Your task to perform on an android device: turn on improve location accuracy Image 0: 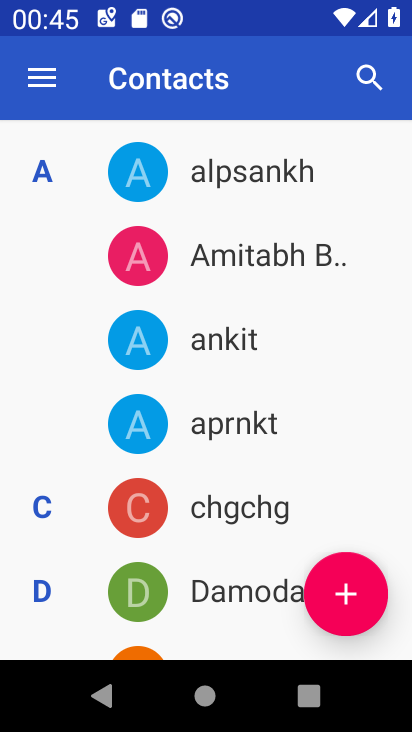
Step 0: press home button
Your task to perform on an android device: turn on improve location accuracy Image 1: 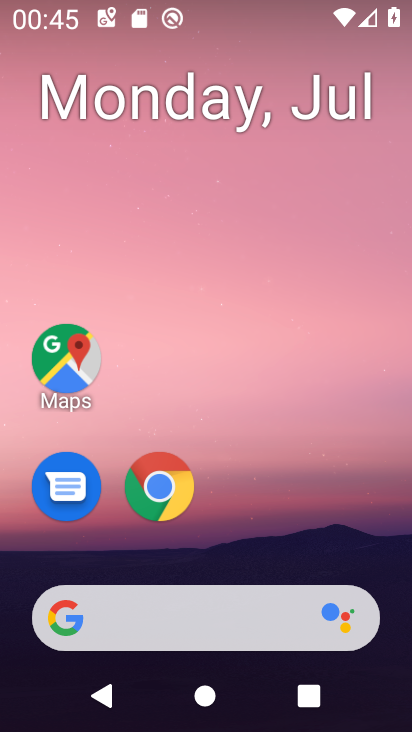
Step 1: click (400, 532)
Your task to perform on an android device: turn on improve location accuracy Image 2: 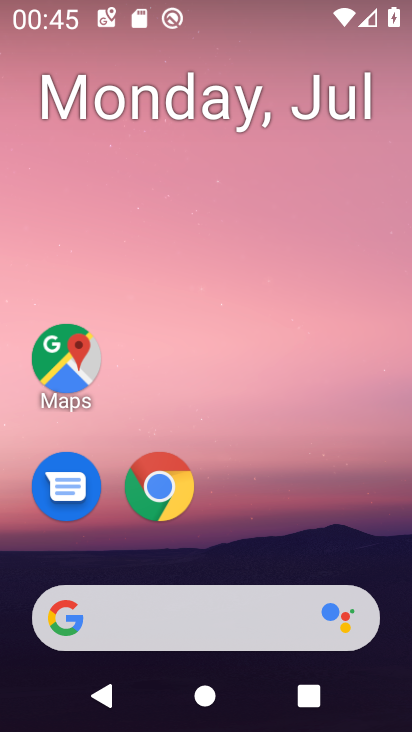
Step 2: drag from (330, 485) to (317, 33)
Your task to perform on an android device: turn on improve location accuracy Image 3: 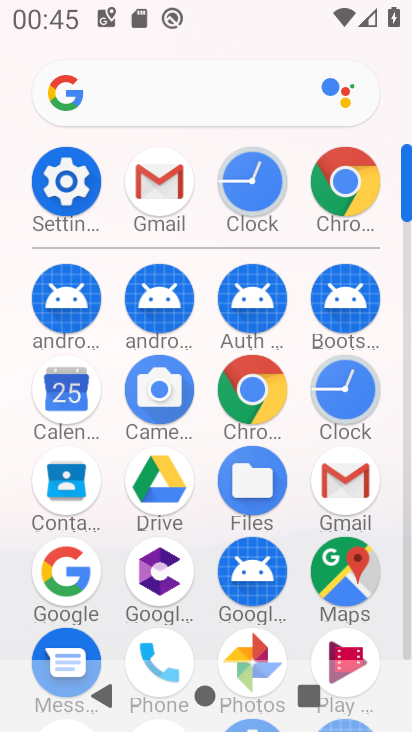
Step 3: drag from (387, 634) to (395, 441)
Your task to perform on an android device: turn on improve location accuracy Image 4: 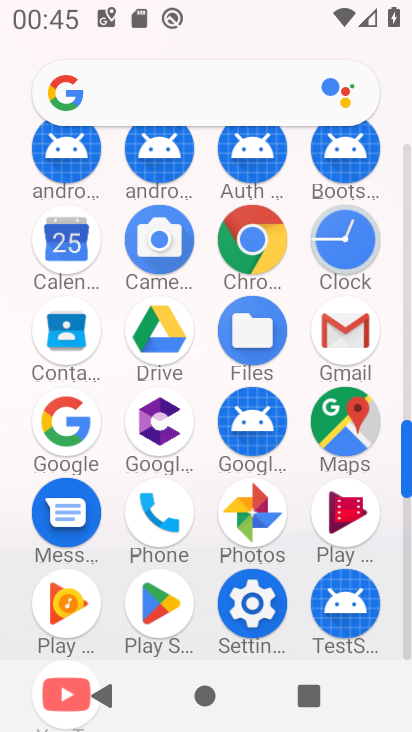
Step 4: click (291, 603)
Your task to perform on an android device: turn on improve location accuracy Image 5: 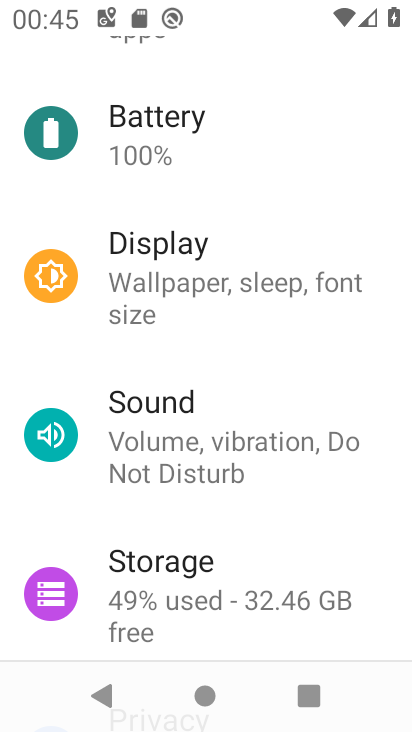
Step 5: drag from (321, 503) to (324, 384)
Your task to perform on an android device: turn on improve location accuracy Image 6: 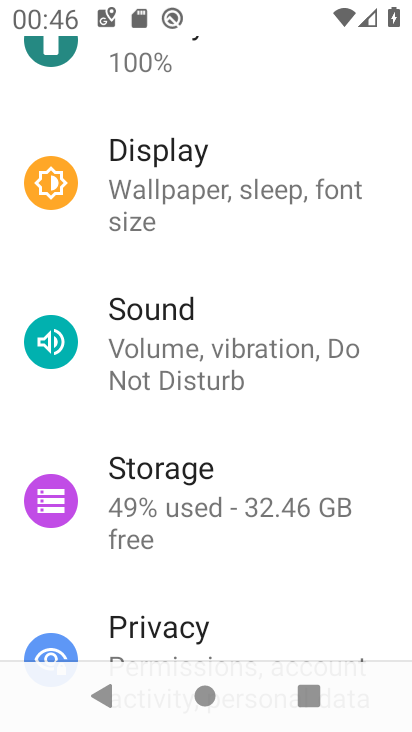
Step 6: drag from (348, 573) to (351, 333)
Your task to perform on an android device: turn on improve location accuracy Image 7: 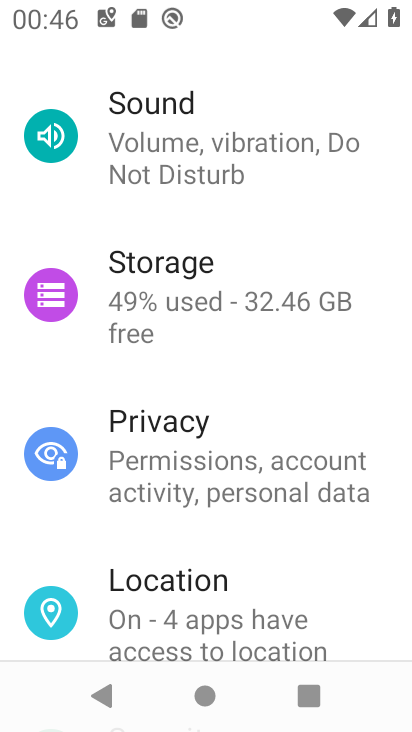
Step 7: drag from (319, 572) to (320, 424)
Your task to perform on an android device: turn on improve location accuracy Image 8: 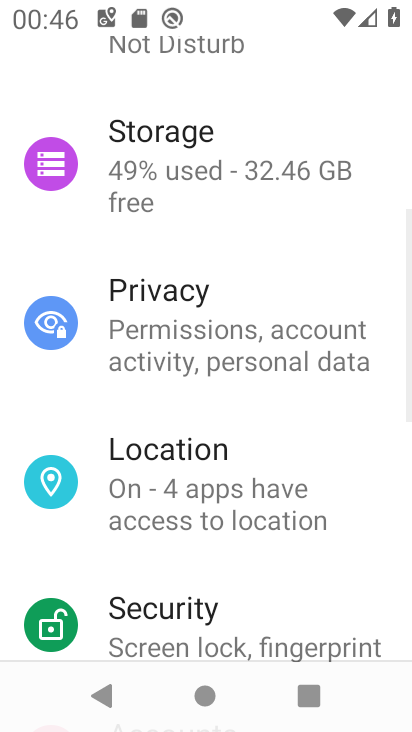
Step 8: click (294, 517)
Your task to perform on an android device: turn on improve location accuracy Image 9: 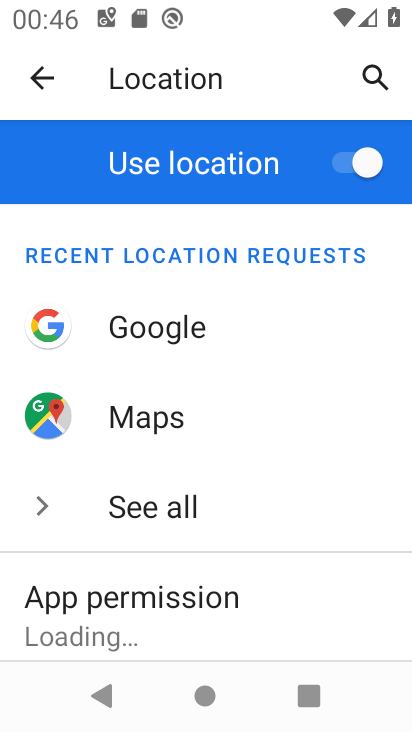
Step 9: drag from (298, 548) to (285, 394)
Your task to perform on an android device: turn on improve location accuracy Image 10: 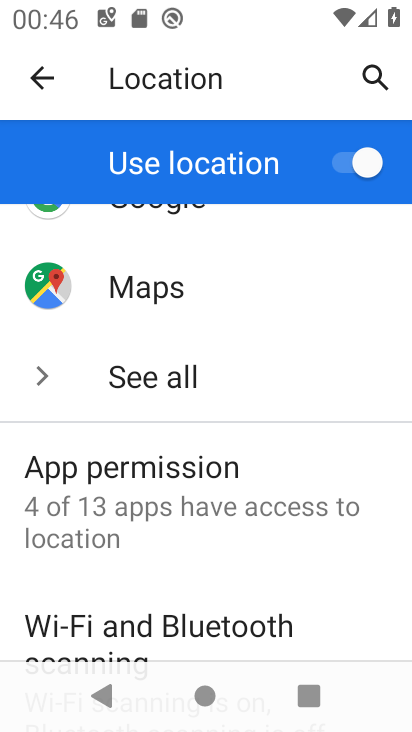
Step 10: drag from (314, 577) to (316, 399)
Your task to perform on an android device: turn on improve location accuracy Image 11: 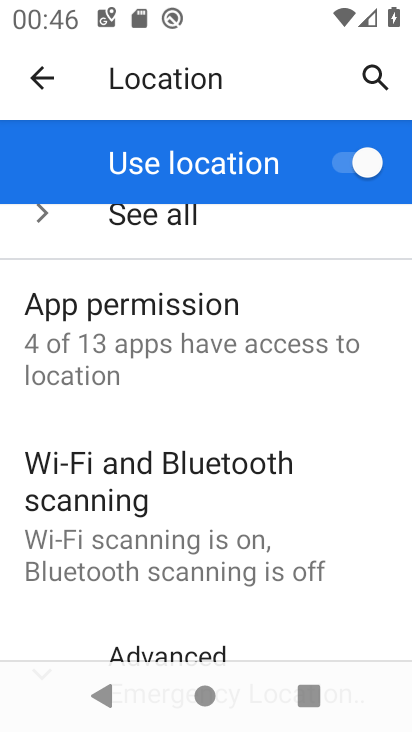
Step 11: drag from (286, 604) to (293, 434)
Your task to perform on an android device: turn on improve location accuracy Image 12: 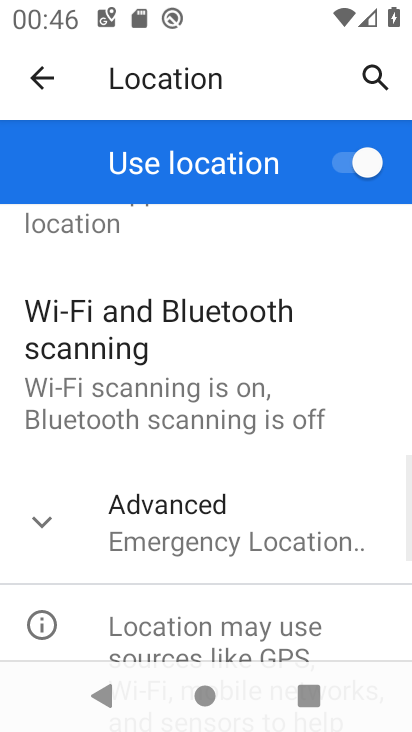
Step 12: click (291, 526)
Your task to perform on an android device: turn on improve location accuracy Image 13: 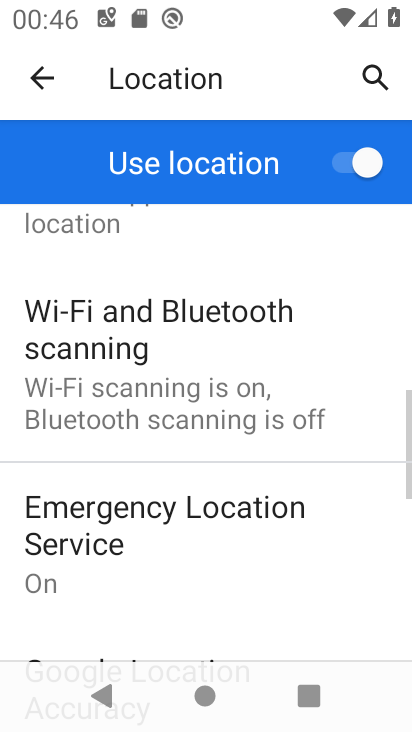
Step 13: drag from (279, 572) to (264, 463)
Your task to perform on an android device: turn on improve location accuracy Image 14: 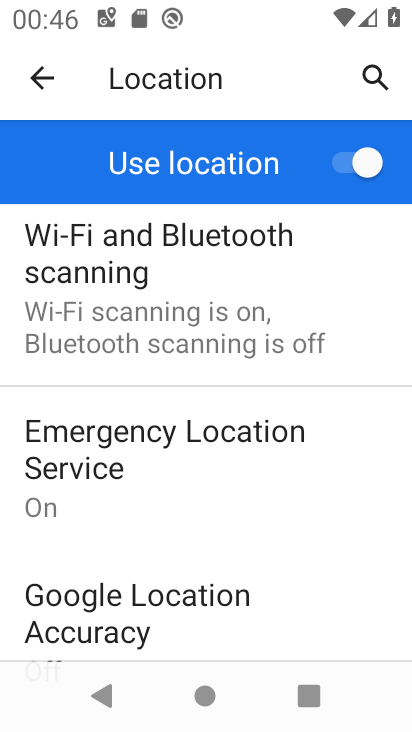
Step 14: drag from (303, 595) to (294, 421)
Your task to perform on an android device: turn on improve location accuracy Image 15: 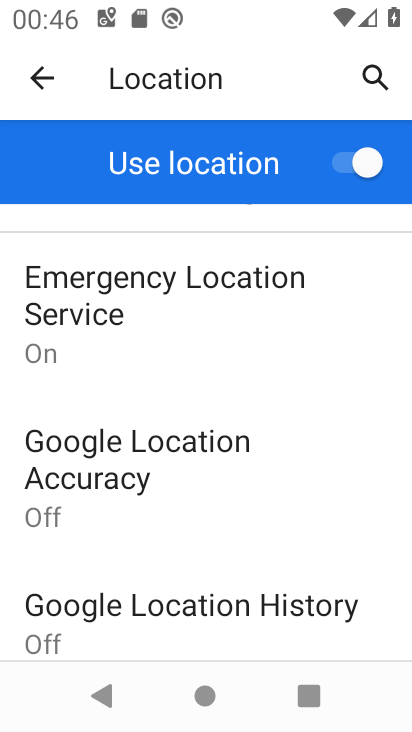
Step 15: drag from (268, 620) to (263, 482)
Your task to perform on an android device: turn on improve location accuracy Image 16: 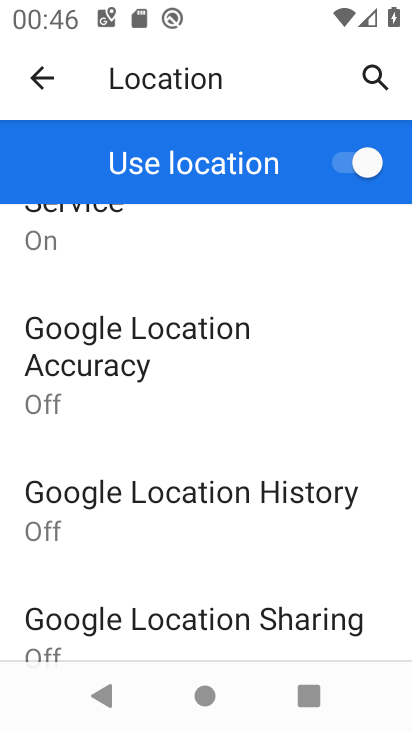
Step 16: click (178, 357)
Your task to perform on an android device: turn on improve location accuracy Image 17: 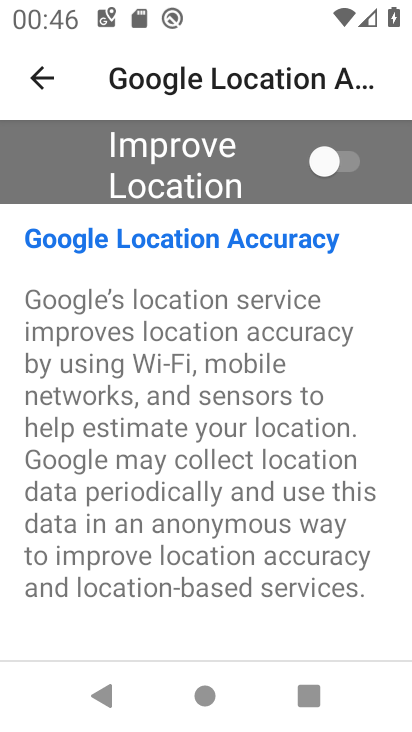
Step 17: click (318, 154)
Your task to perform on an android device: turn on improve location accuracy Image 18: 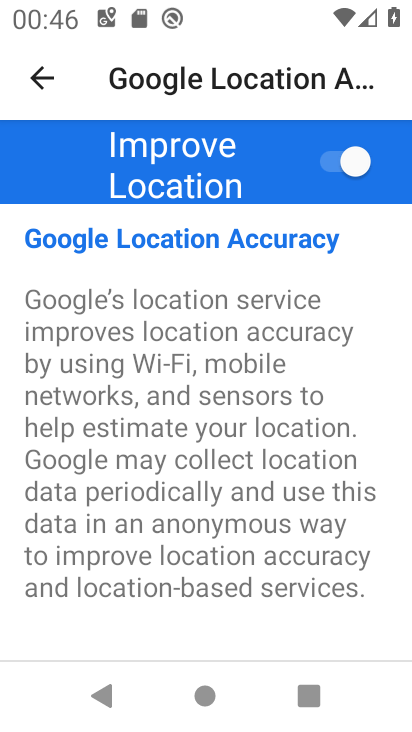
Step 18: task complete